Your task to perform on an android device: toggle improve location accuracy Image 0: 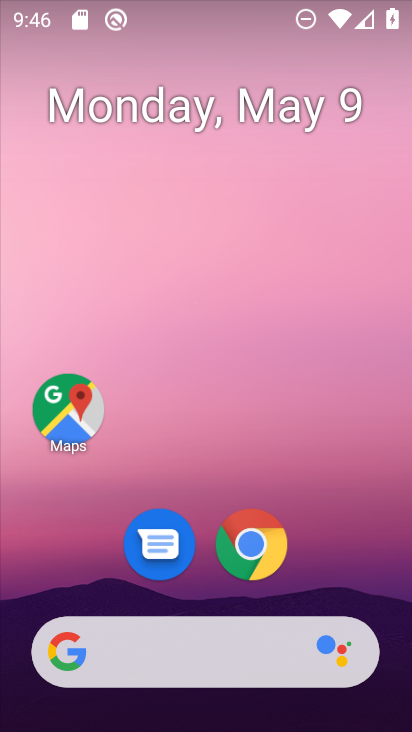
Step 0: drag from (332, 585) to (266, 124)
Your task to perform on an android device: toggle improve location accuracy Image 1: 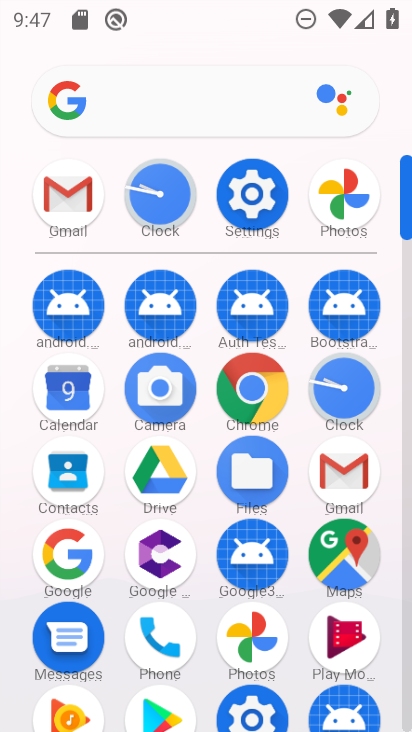
Step 1: click (259, 201)
Your task to perform on an android device: toggle improve location accuracy Image 2: 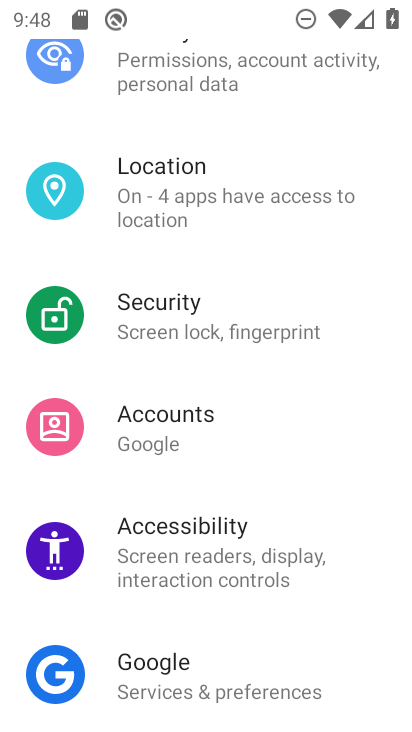
Step 2: click (185, 172)
Your task to perform on an android device: toggle improve location accuracy Image 3: 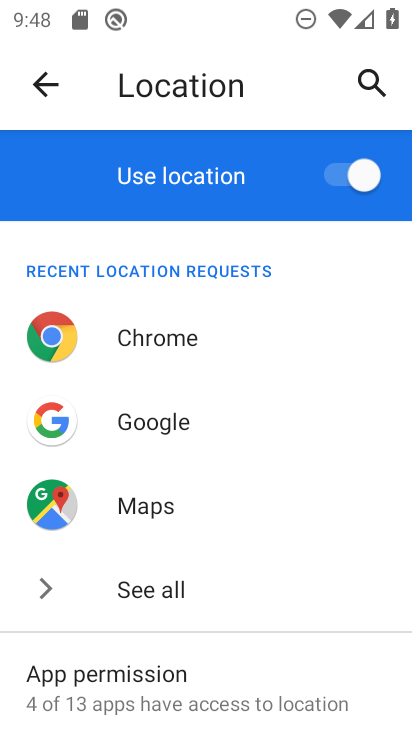
Step 3: drag from (223, 522) to (199, 280)
Your task to perform on an android device: toggle improve location accuracy Image 4: 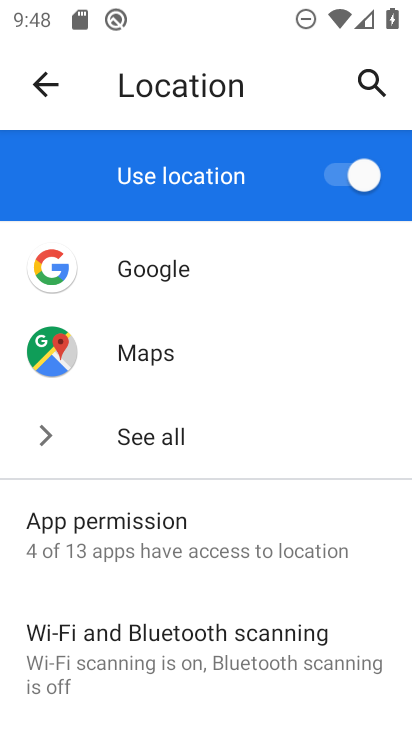
Step 4: drag from (116, 590) to (52, 266)
Your task to perform on an android device: toggle improve location accuracy Image 5: 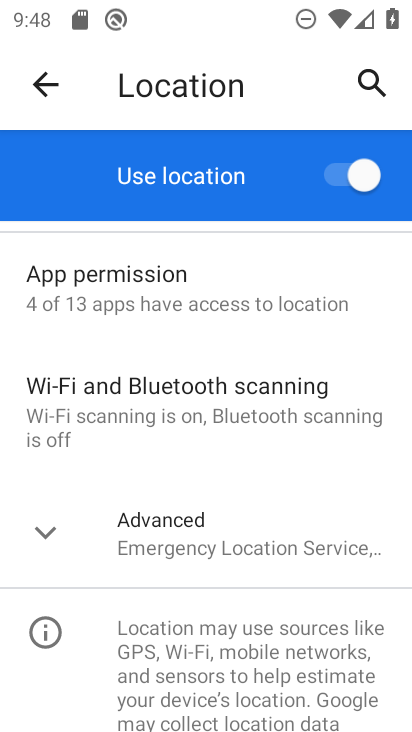
Step 5: click (55, 532)
Your task to perform on an android device: toggle improve location accuracy Image 6: 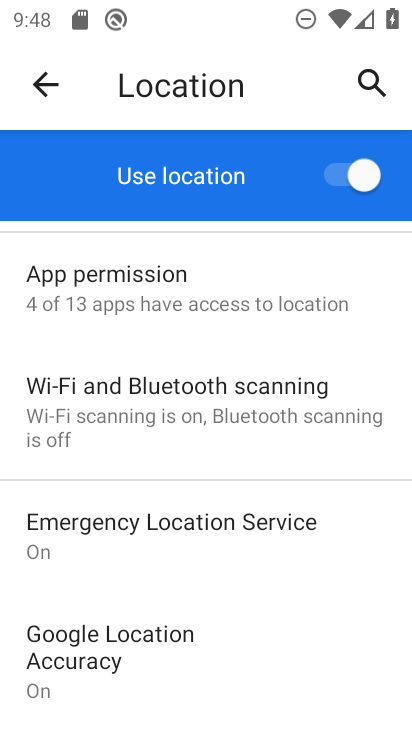
Step 6: click (99, 648)
Your task to perform on an android device: toggle improve location accuracy Image 7: 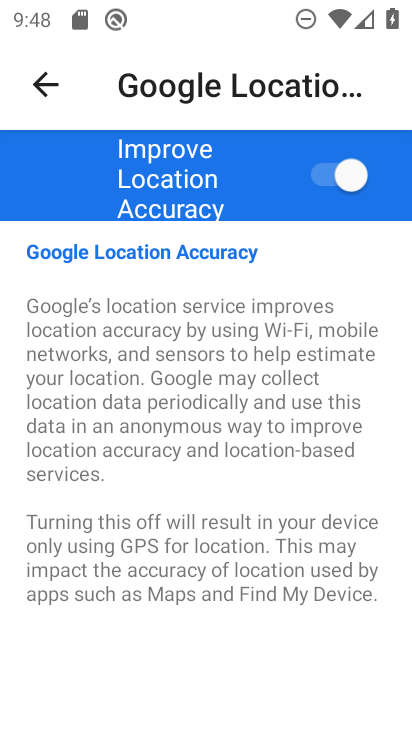
Step 7: click (347, 170)
Your task to perform on an android device: toggle improve location accuracy Image 8: 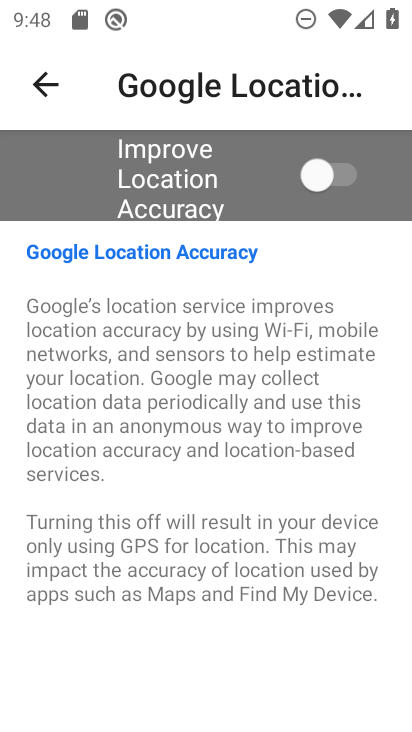
Step 8: task complete